Your task to perform on an android device: Open Google Chrome Image 0: 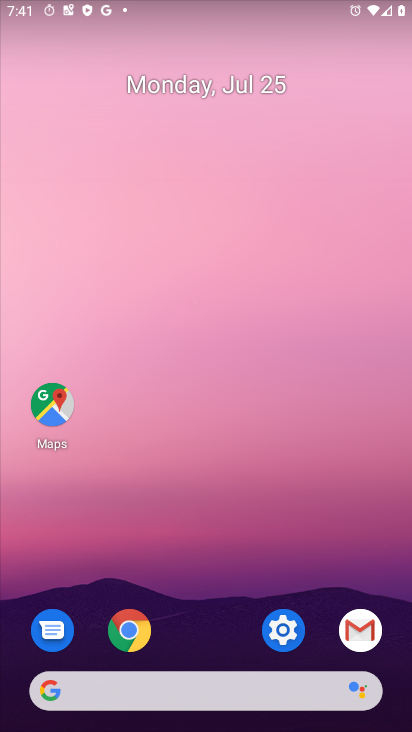
Step 0: click (131, 635)
Your task to perform on an android device: Open Google Chrome Image 1: 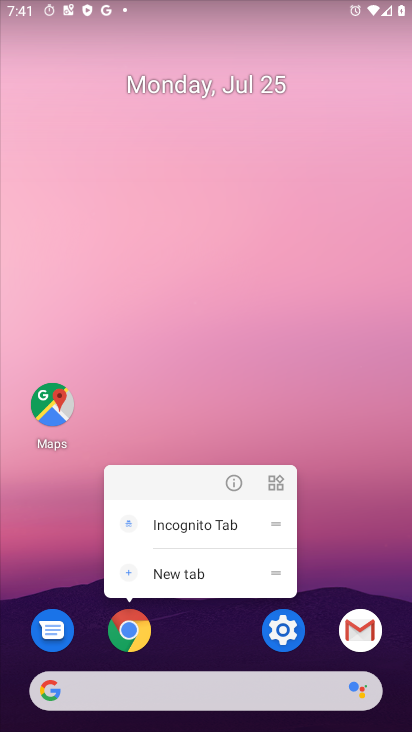
Step 1: click (131, 633)
Your task to perform on an android device: Open Google Chrome Image 2: 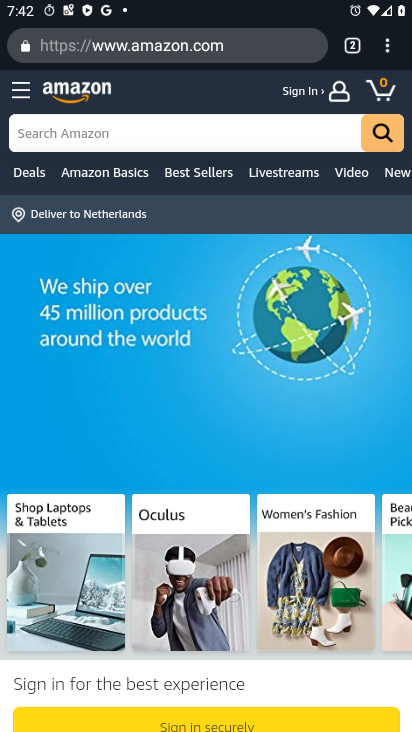
Step 2: click (353, 52)
Your task to perform on an android device: Open Google Chrome Image 3: 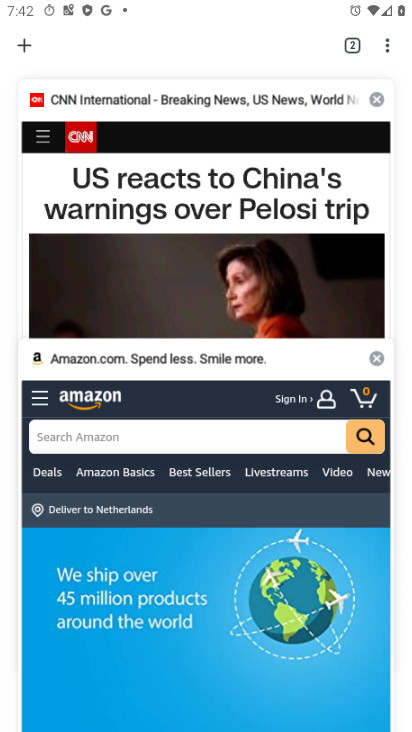
Step 3: click (26, 47)
Your task to perform on an android device: Open Google Chrome Image 4: 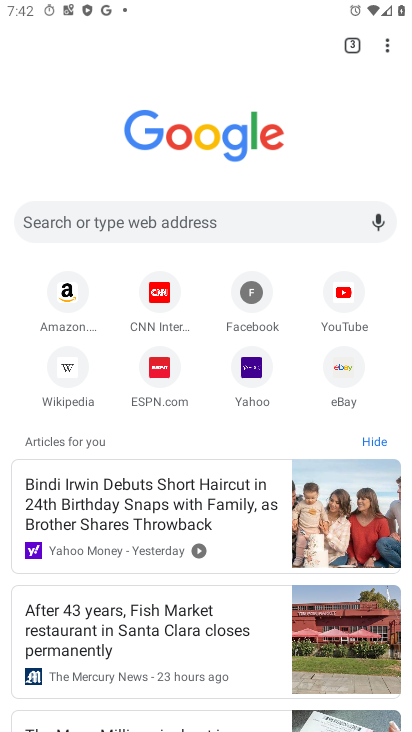
Step 4: task complete